Your task to perform on an android device: What's the weather going to be this weekend? Image 0: 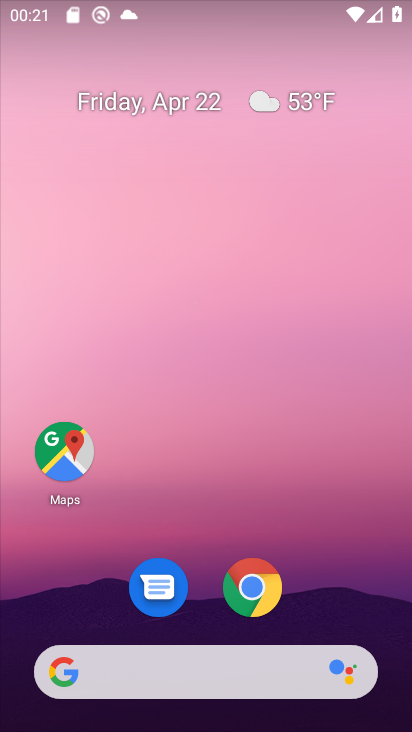
Step 0: click (341, 594)
Your task to perform on an android device: What's the weather going to be this weekend? Image 1: 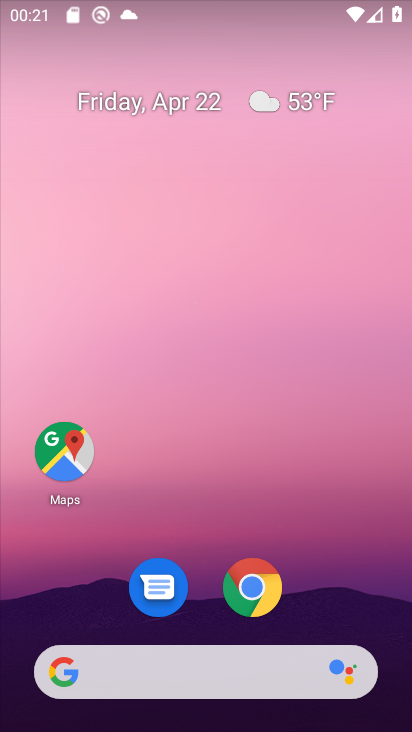
Step 1: click (264, 598)
Your task to perform on an android device: What's the weather going to be this weekend? Image 2: 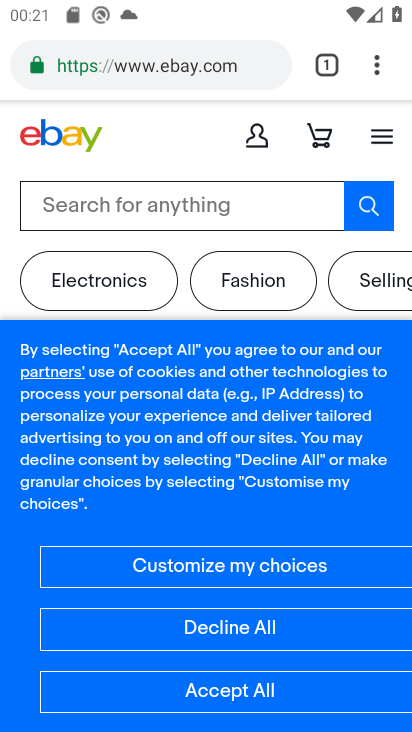
Step 2: click (122, 69)
Your task to perform on an android device: What's the weather going to be this weekend? Image 3: 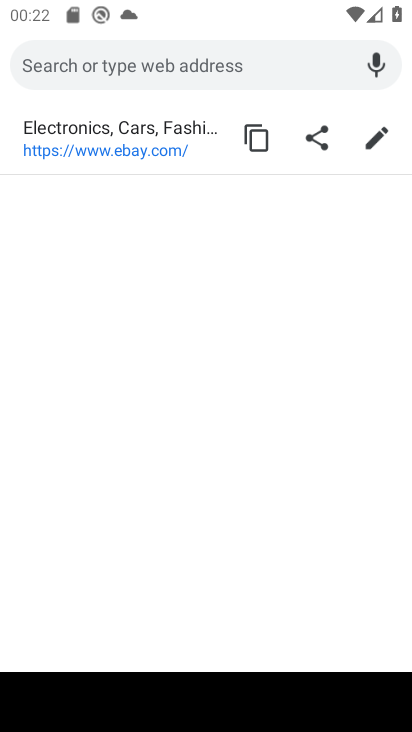
Step 3: type "what's the weather going to be this weekend"
Your task to perform on an android device: What's the weather going to be this weekend? Image 4: 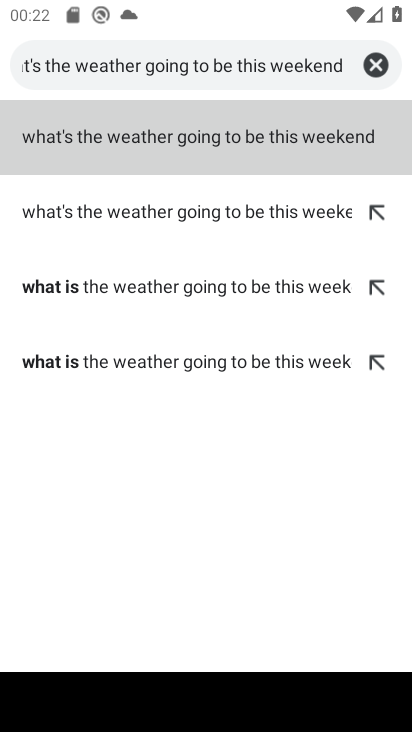
Step 4: click (297, 145)
Your task to perform on an android device: What's the weather going to be this weekend? Image 5: 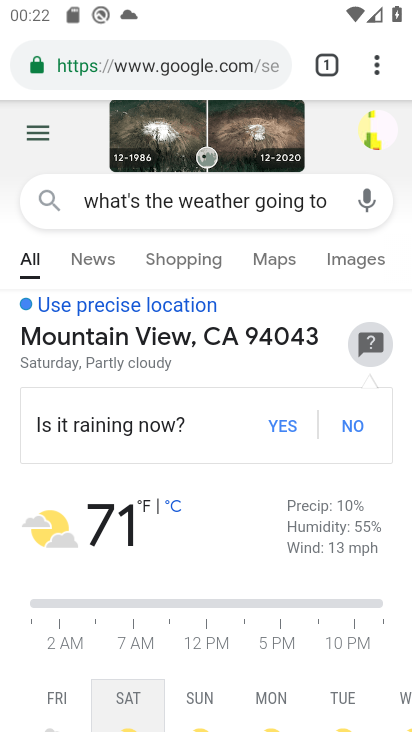
Step 5: task complete